Your task to perform on an android device: Is it going to rain this weekend? Image 0: 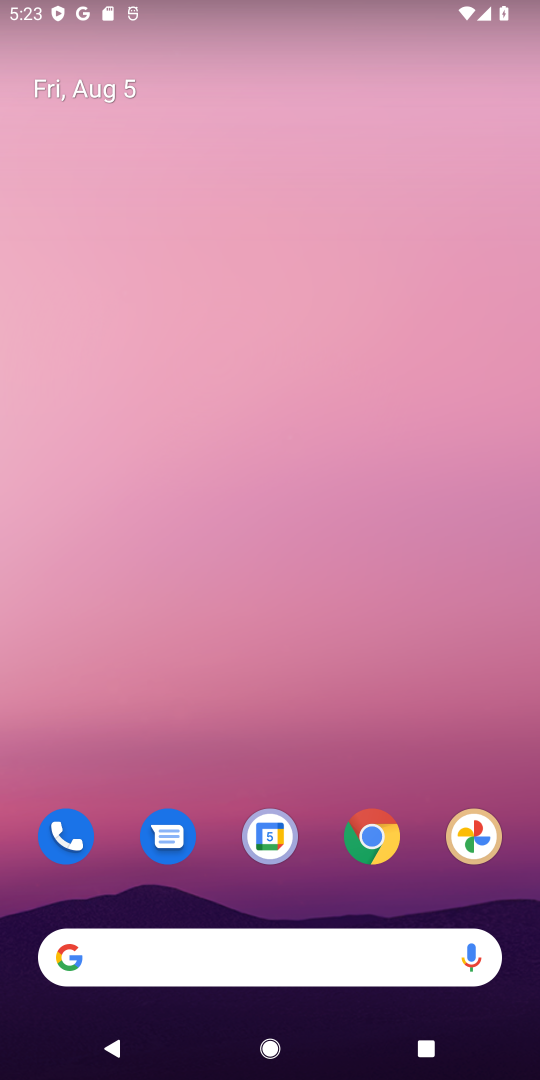
Step 0: press home button
Your task to perform on an android device: Is it going to rain this weekend? Image 1: 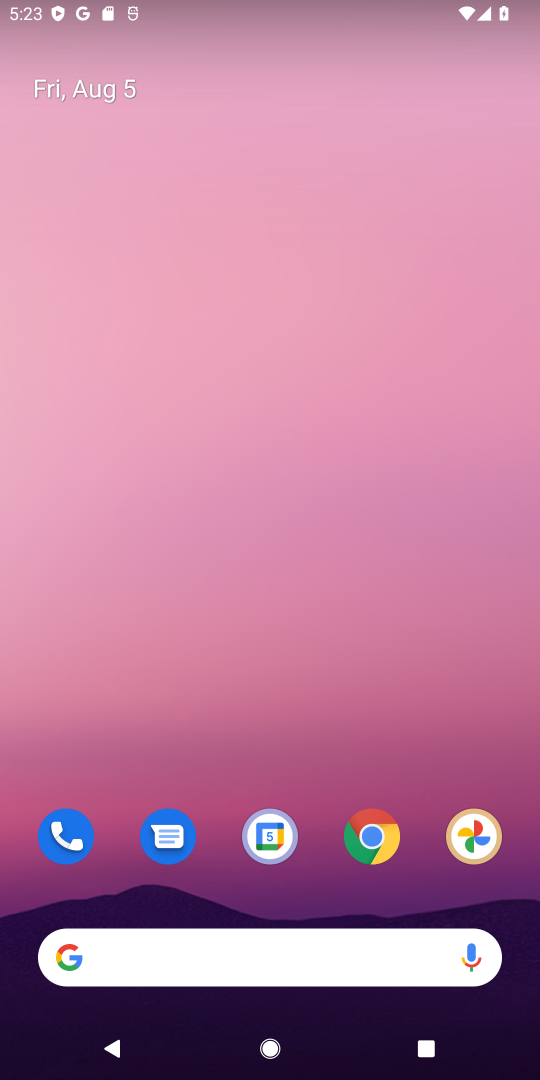
Step 1: drag from (325, 891) to (357, 160)
Your task to perform on an android device: Is it going to rain this weekend? Image 2: 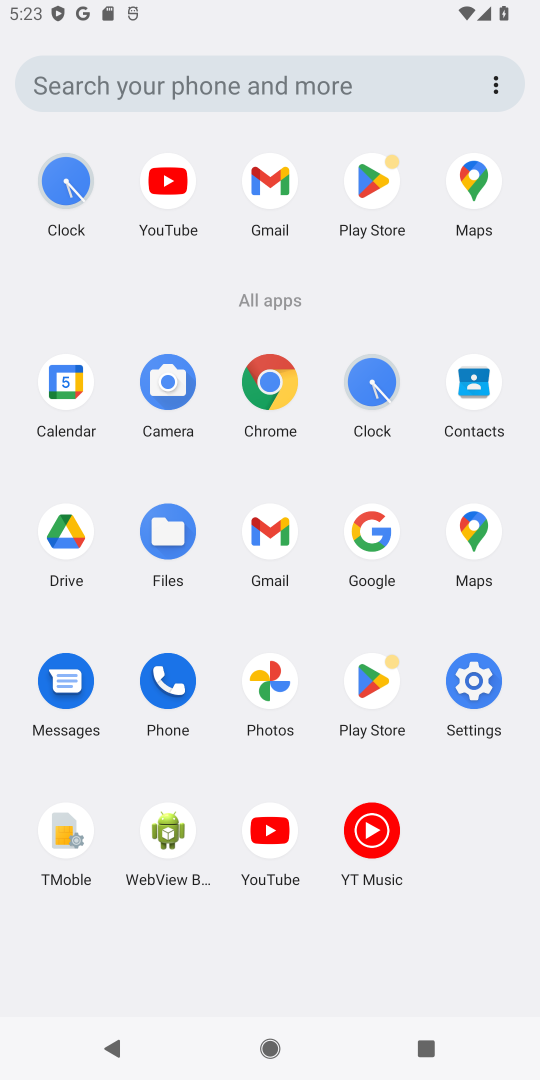
Step 2: press back button
Your task to perform on an android device: Is it going to rain this weekend? Image 3: 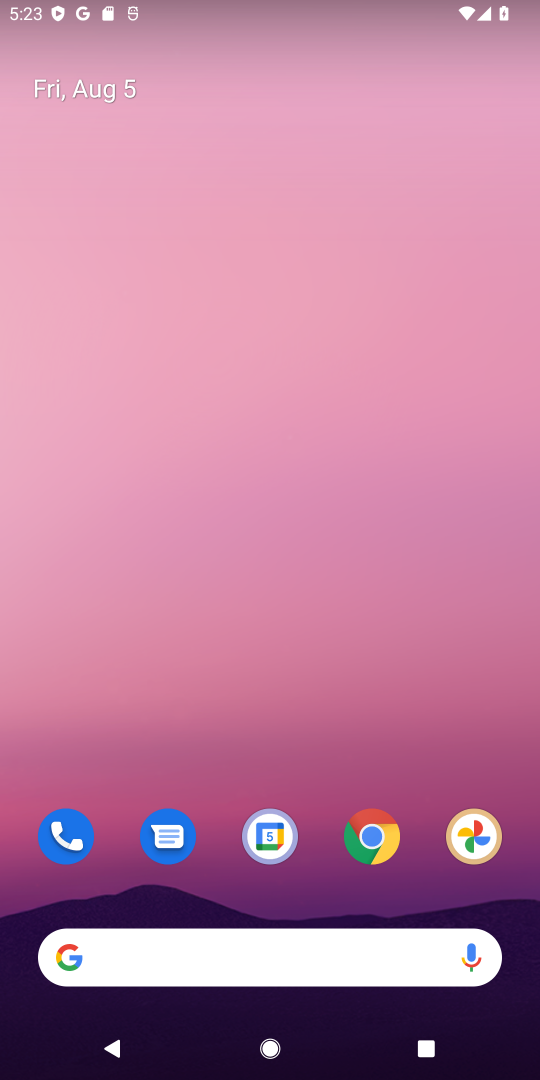
Step 3: click (268, 949)
Your task to perform on an android device: Is it going to rain this weekend? Image 4: 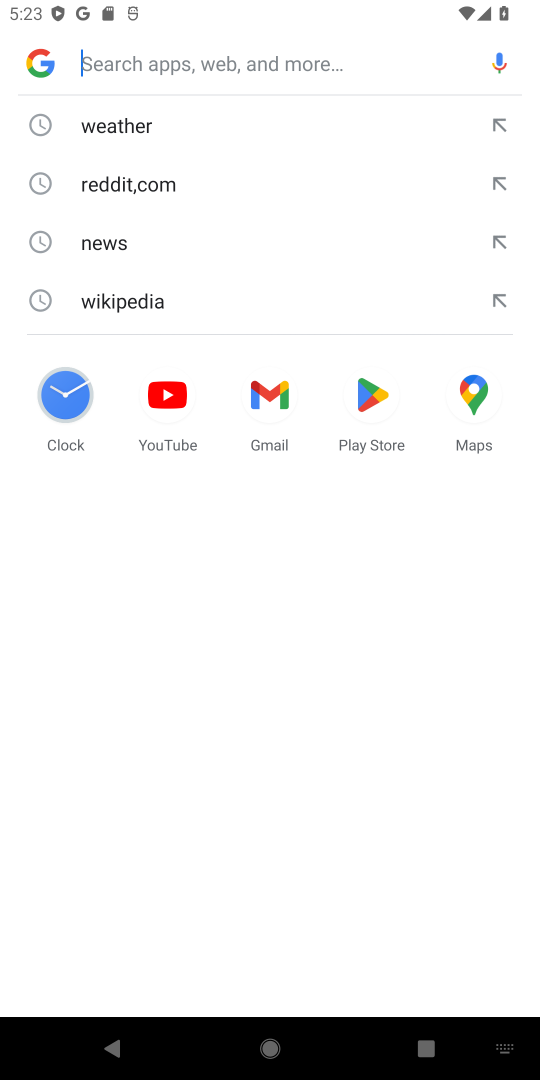
Step 4: click (166, 115)
Your task to perform on an android device: Is it going to rain this weekend? Image 5: 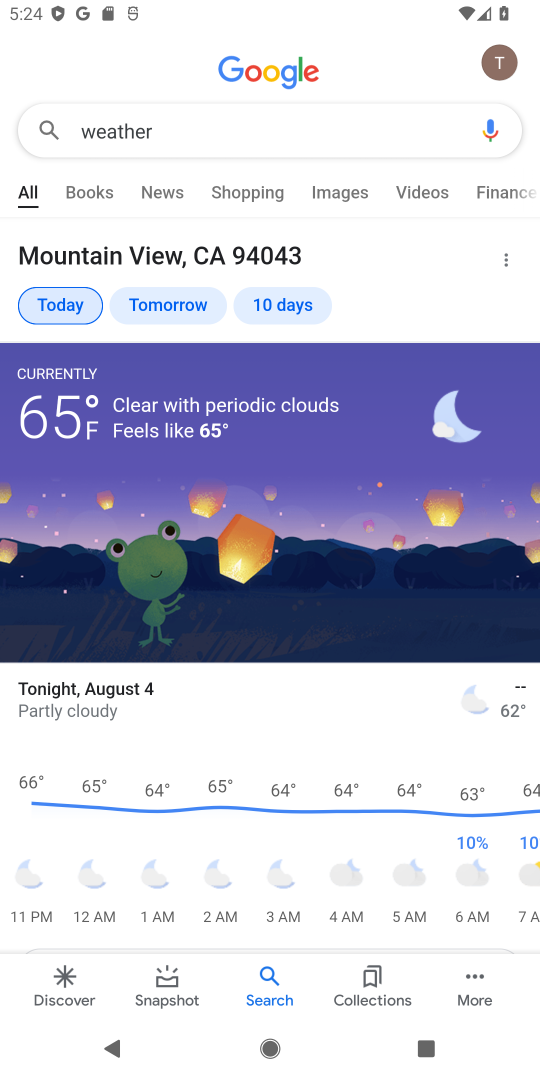
Step 5: drag from (309, 793) to (314, 555)
Your task to perform on an android device: Is it going to rain this weekend? Image 6: 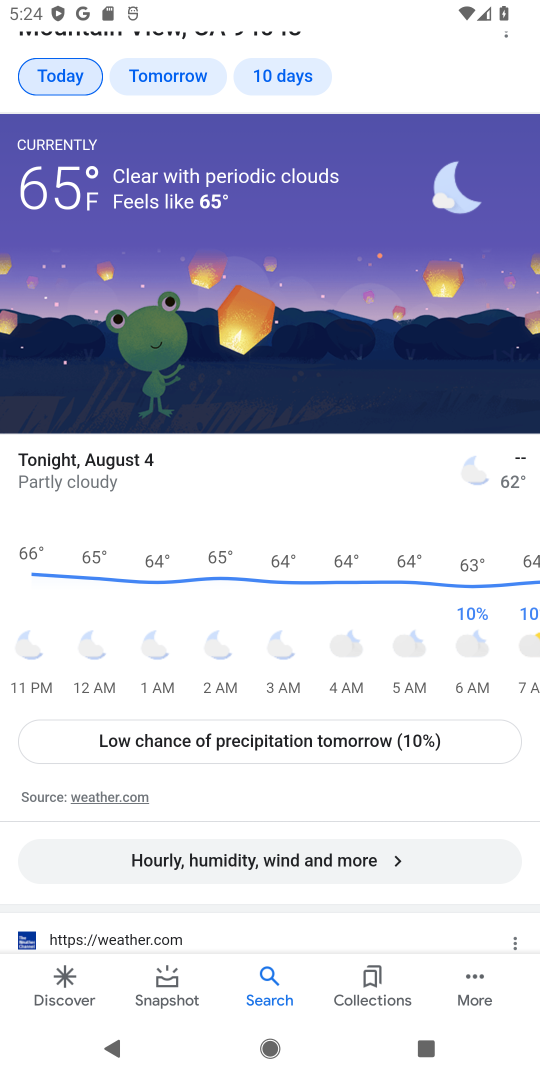
Step 6: click (280, 71)
Your task to perform on an android device: Is it going to rain this weekend? Image 7: 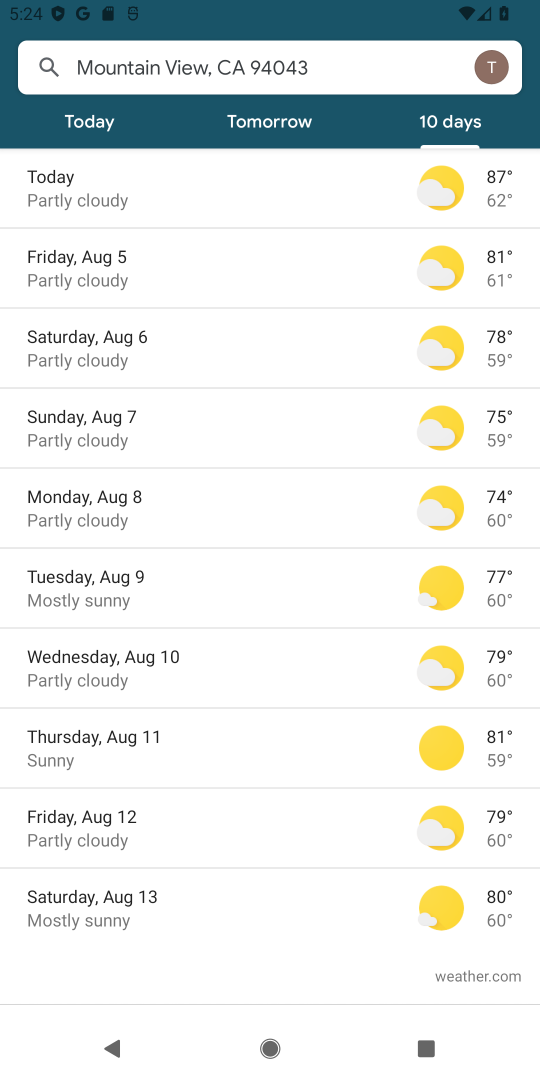
Step 7: click (138, 356)
Your task to perform on an android device: Is it going to rain this weekend? Image 8: 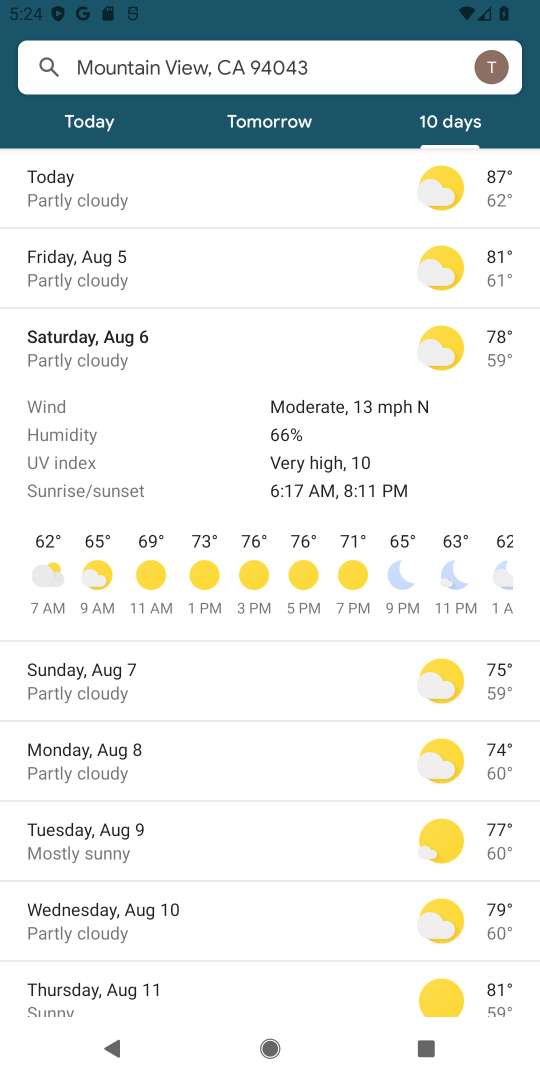
Step 8: click (156, 678)
Your task to perform on an android device: Is it going to rain this weekend? Image 9: 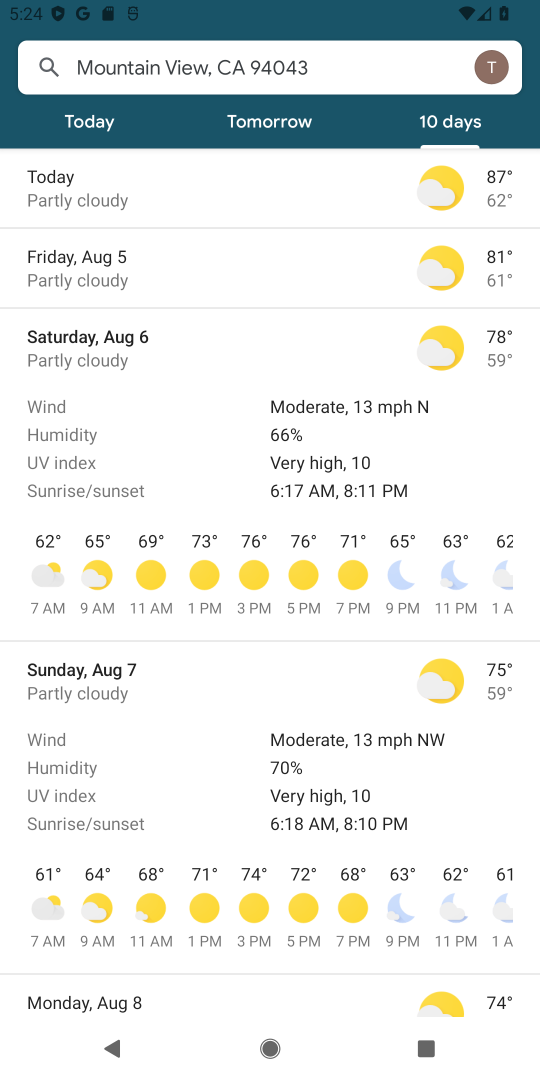
Step 9: task complete